Your task to perform on an android device: Go to location settings Image 0: 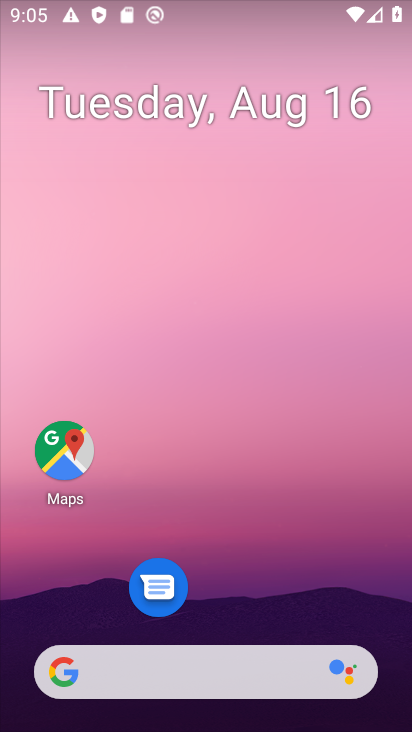
Step 0: drag from (252, 625) to (410, 162)
Your task to perform on an android device: Go to location settings Image 1: 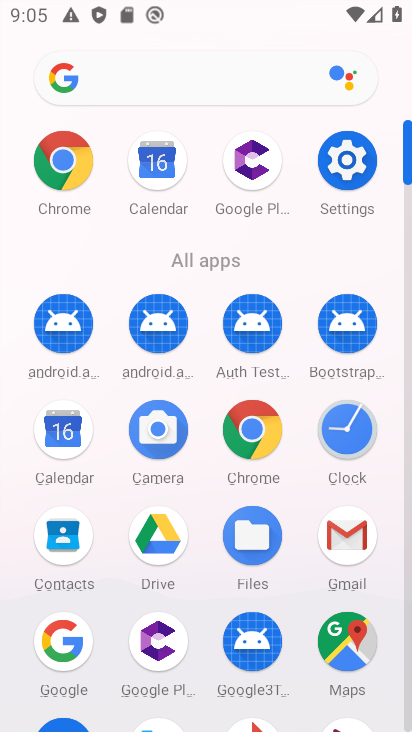
Step 1: click (339, 170)
Your task to perform on an android device: Go to location settings Image 2: 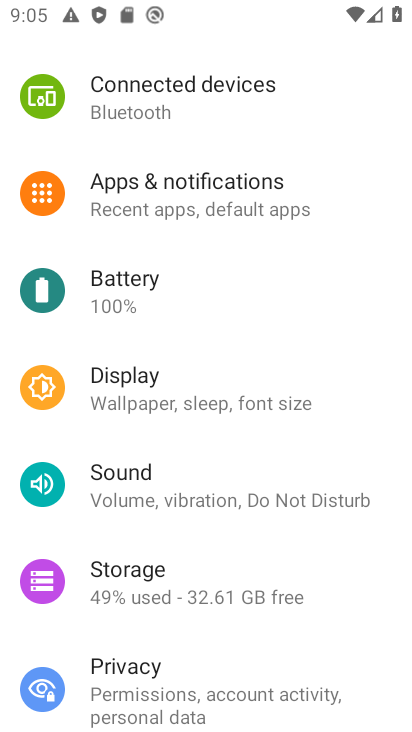
Step 2: drag from (328, 527) to (292, 13)
Your task to perform on an android device: Go to location settings Image 3: 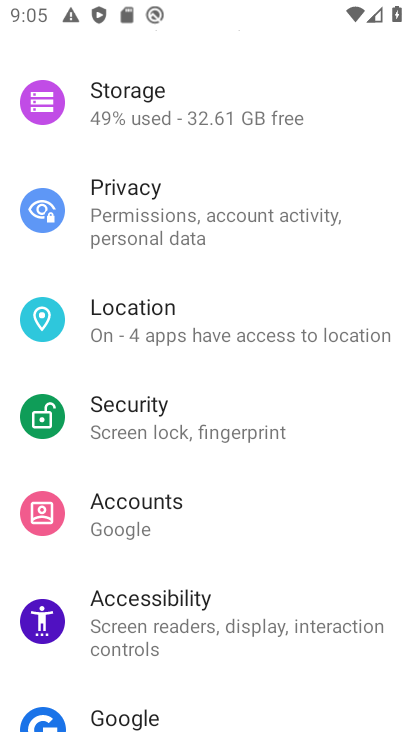
Step 3: click (145, 320)
Your task to perform on an android device: Go to location settings Image 4: 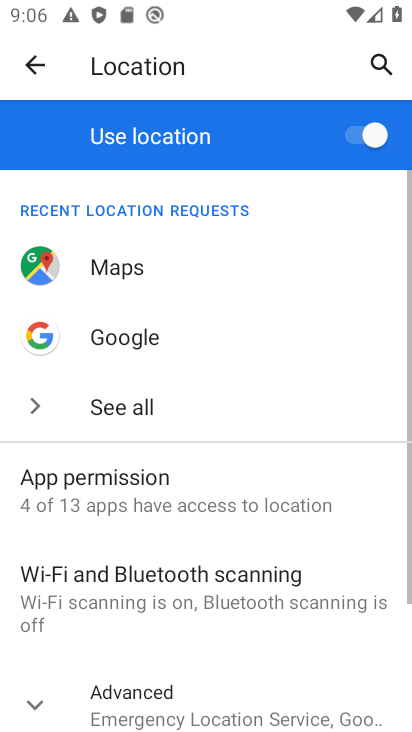
Step 4: click (109, 676)
Your task to perform on an android device: Go to location settings Image 5: 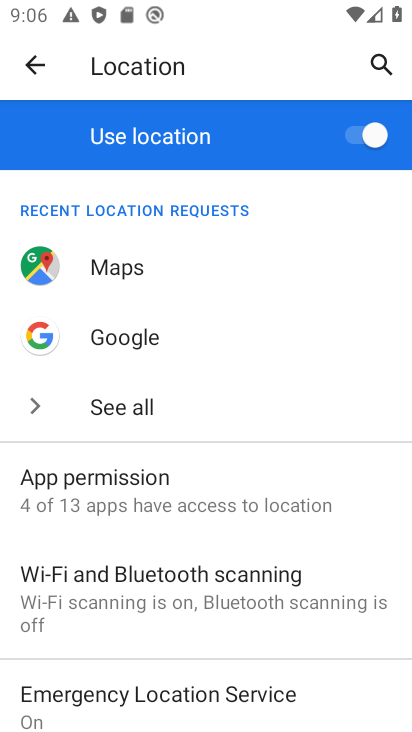
Step 5: task complete